Your task to perform on an android device: change timer sound Image 0: 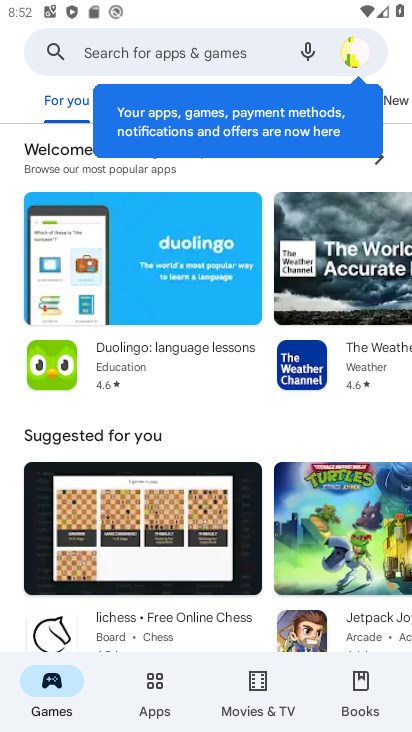
Step 0: press home button
Your task to perform on an android device: change timer sound Image 1: 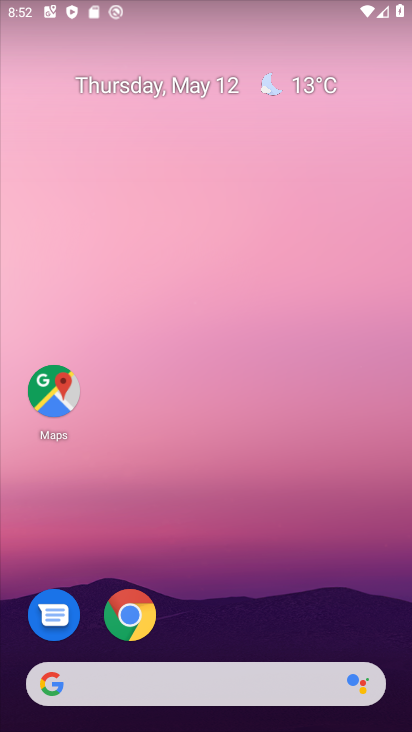
Step 1: drag from (249, 650) to (194, 21)
Your task to perform on an android device: change timer sound Image 2: 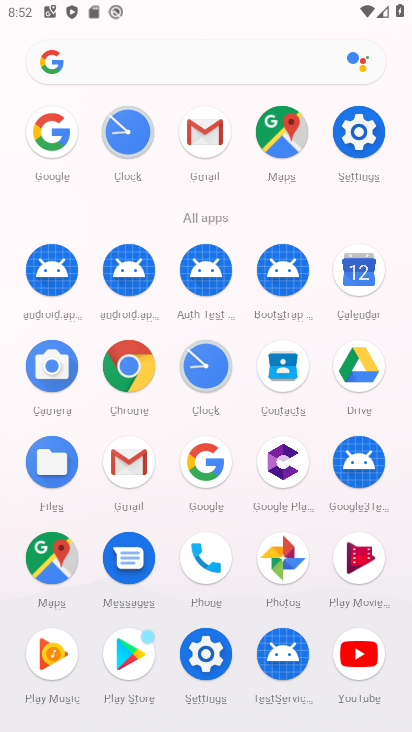
Step 2: click (183, 400)
Your task to perform on an android device: change timer sound Image 3: 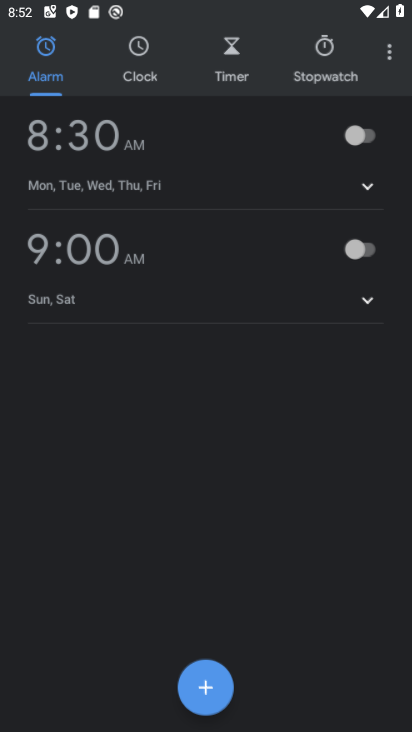
Step 3: click (390, 53)
Your task to perform on an android device: change timer sound Image 4: 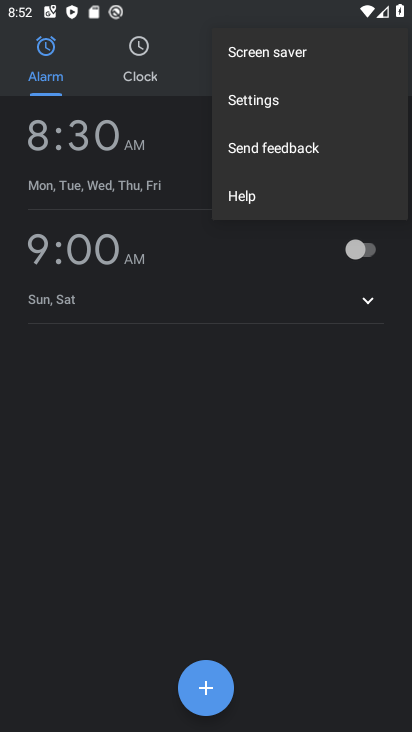
Step 4: click (265, 97)
Your task to perform on an android device: change timer sound Image 5: 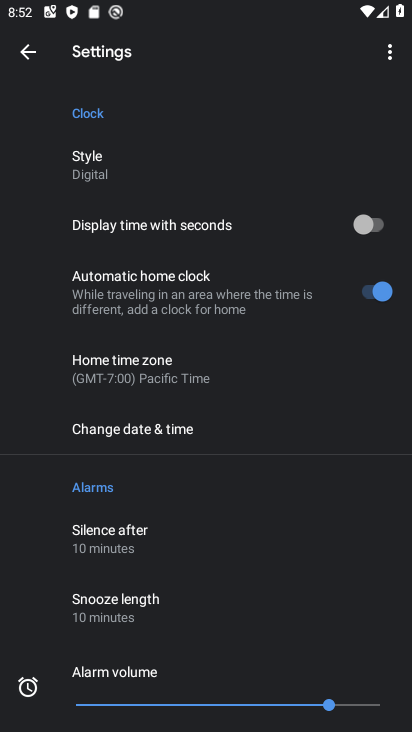
Step 5: drag from (211, 520) to (146, 10)
Your task to perform on an android device: change timer sound Image 6: 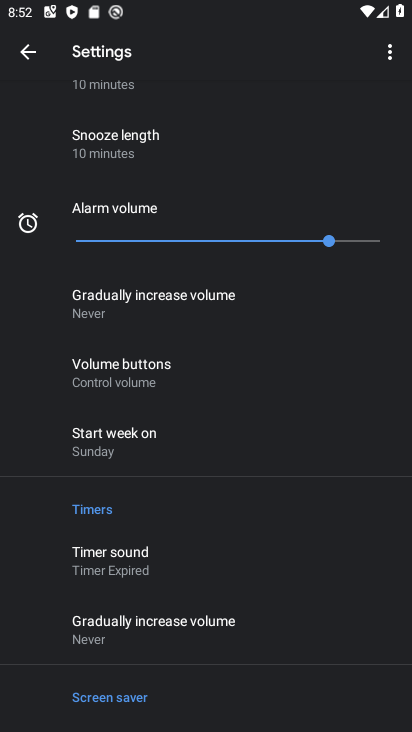
Step 6: click (137, 551)
Your task to perform on an android device: change timer sound Image 7: 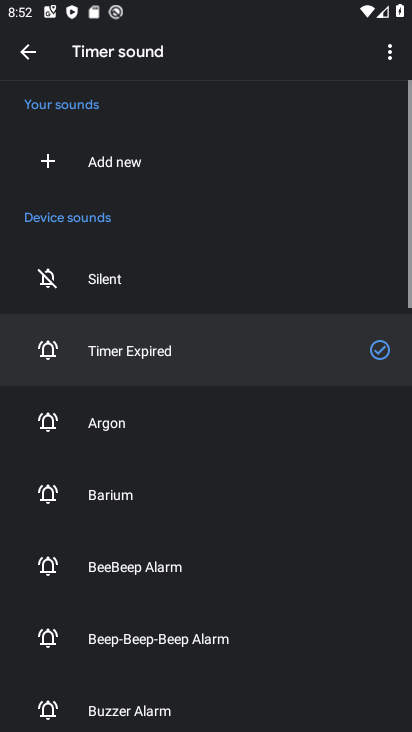
Step 7: click (233, 426)
Your task to perform on an android device: change timer sound Image 8: 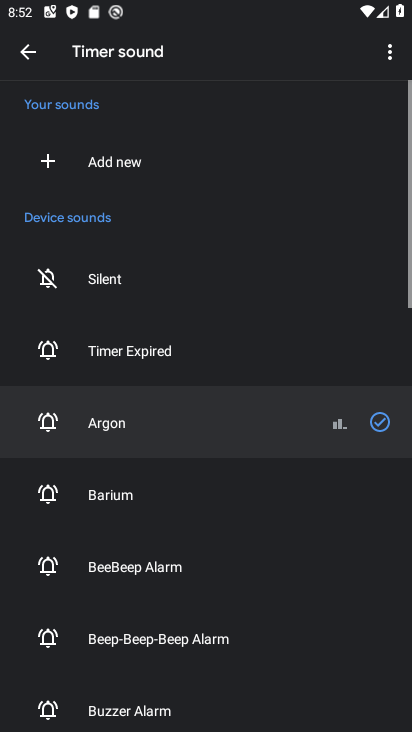
Step 8: task complete